Your task to perform on an android device: check google app version Image 0: 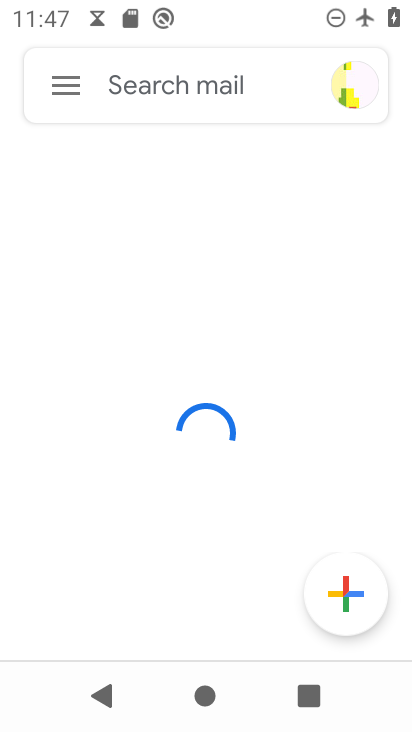
Step 0: press back button
Your task to perform on an android device: check google app version Image 1: 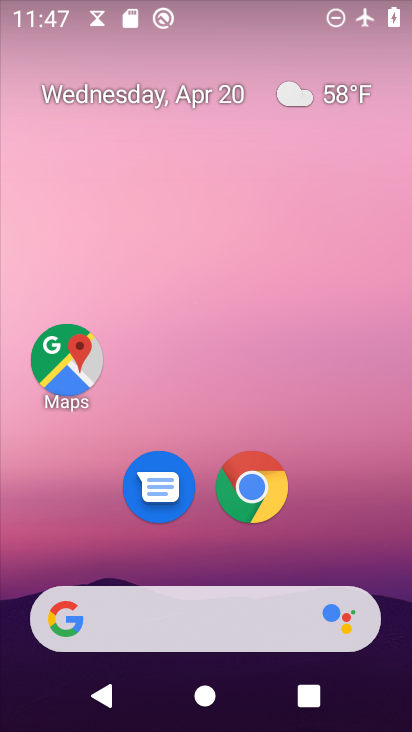
Step 1: drag from (323, 556) to (213, 1)
Your task to perform on an android device: check google app version Image 2: 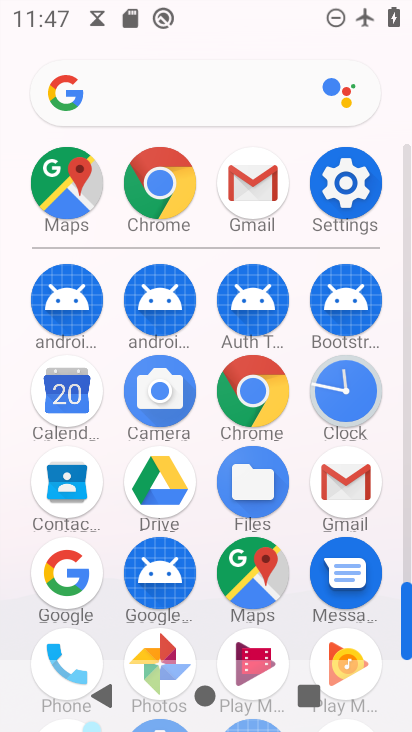
Step 2: click (60, 572)
Your task to perform on an android device: check google app version Image 3: 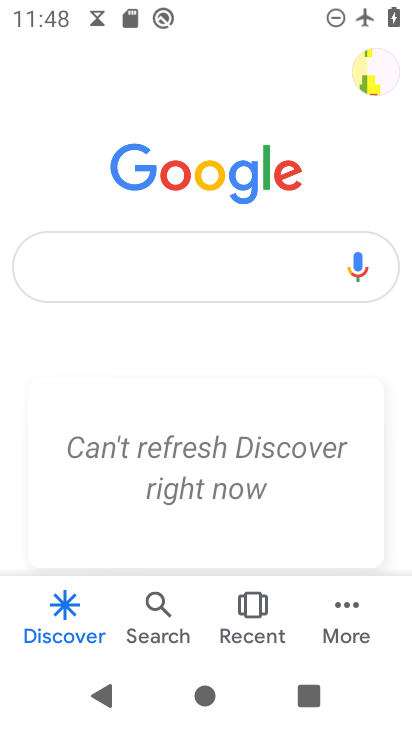
Step 3: click (352, 595)
Your task to perform on an android device: check google app version Image 4: 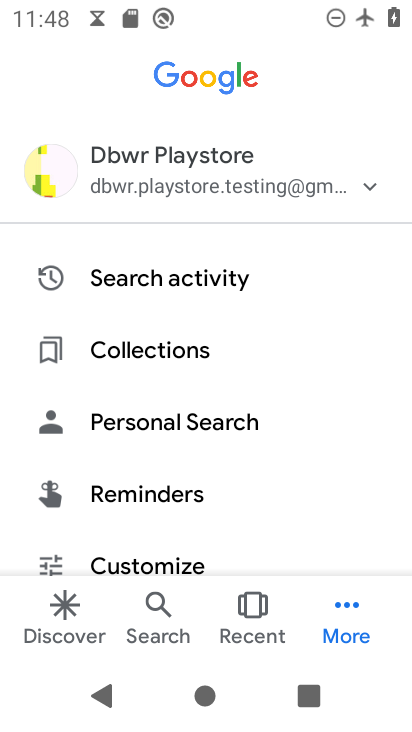
Step 4: drag from (309, 521) to (286, 233)
Your task to perform on an android device: check google app version Image 5: 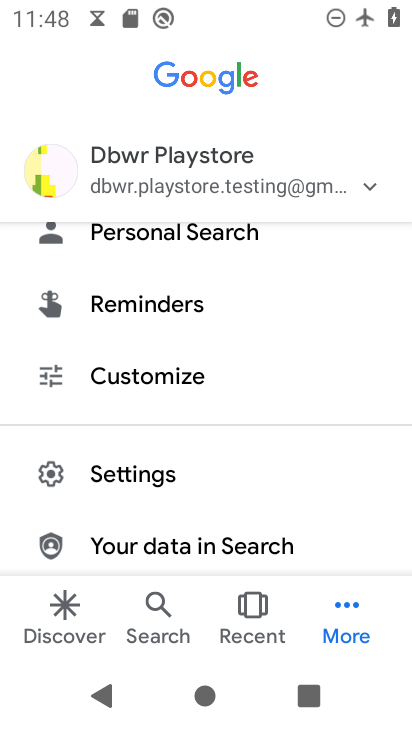
Step 5: click (151, 470)
Your task to perform on an android device: check google app version Image 6: 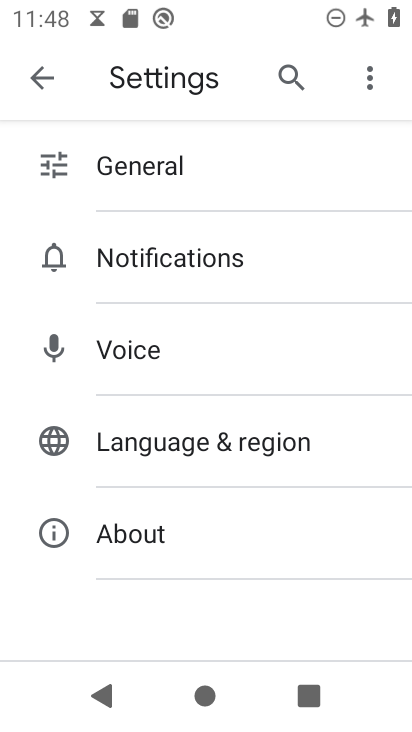
Step 6: click (157, 525)
Your task to perform on an android device: check google app version Image 7: 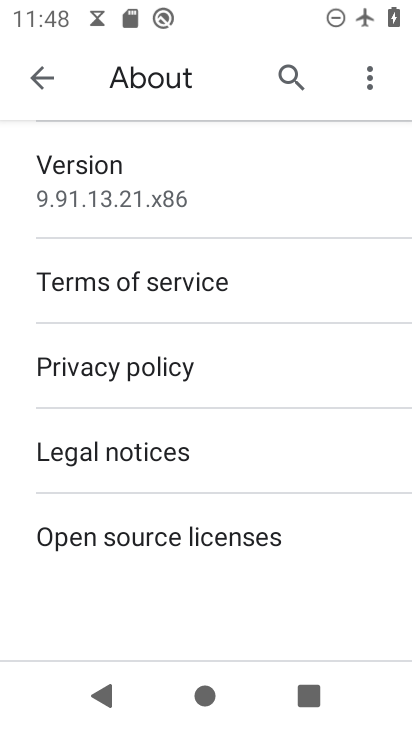
Step 7: task complete